Your task to perform on an android device: open app "Facebook Lite" (install if not already installed) Image 0: 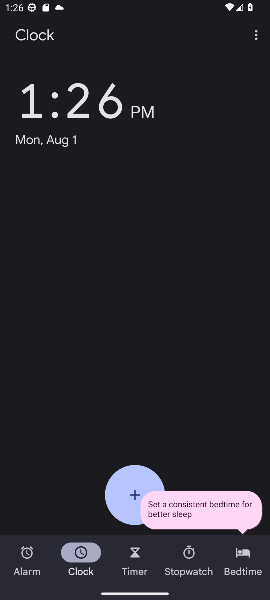
Step 0: press home button
Your task to perform on an android device: open app "Facebook Lite" (install if not already installed) Image 1: 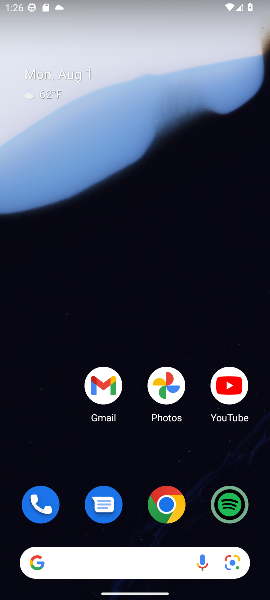
Step 1: drag from (95, 575) to (111, 7)
Your task to perform on an android device: open app "Facebook Lite" (install if not already installed) Image 2: 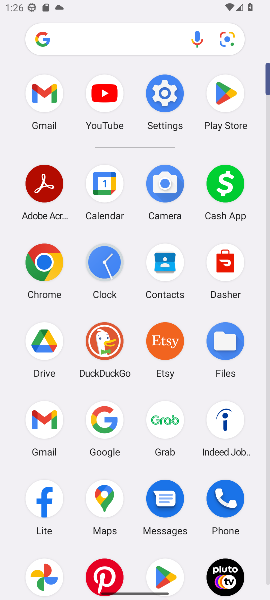
Step 2: click (220, 76)
Your task to perform on an android device: open app "Facebook Lite" (install if not already installed) Image 3: 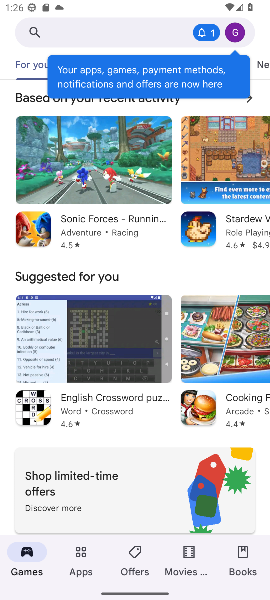
Step 3: click (166, 29)
Your task to perform on an android device: open app "Facebook Lite" (install if not already installed) Image 4: 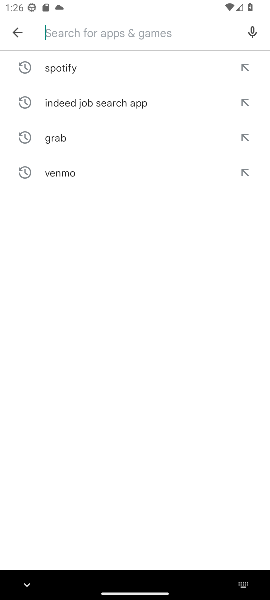
Step 4: type "facebook lite"
Your task to perform on an android device: open app "Facebook Lite" (install if not already installed) Image 5: 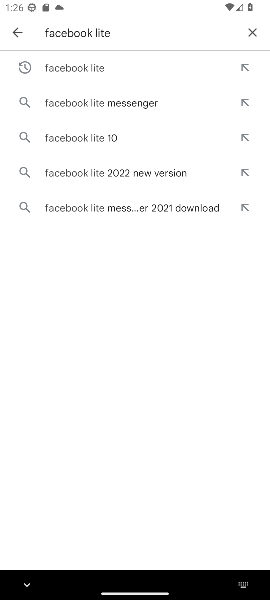
Step 5: click (66, 72)
Your task to perform on an android device: open app "Facebook Lite" (install if not already installed) Image 6: 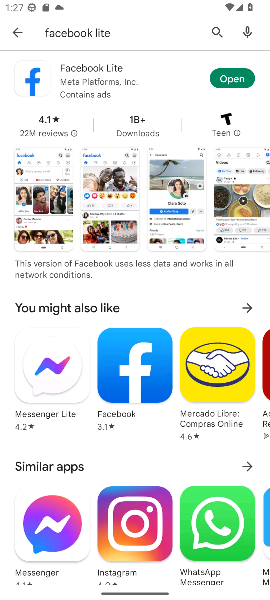
Step 6: click (234, 86)
Your task to perform on an android device: open app "Facebook Lite" (install if not already installed) Image 7: 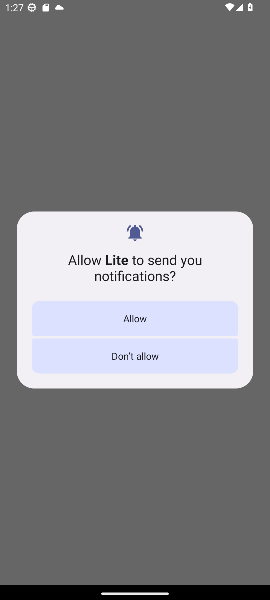
Step 7: task complete